Your task to perform on an android device: move a message to another label in the gmail app Image 0: 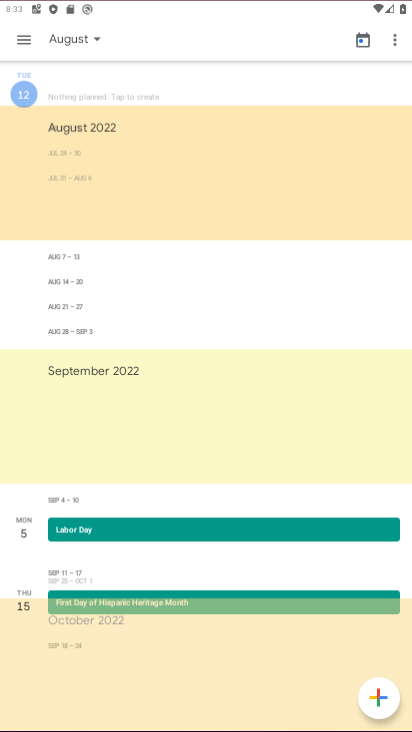
Step 0: drag from (188, 618) to (265, 44)
Your task to perform on an android device: move a message to another label in the gmail app Image 1: 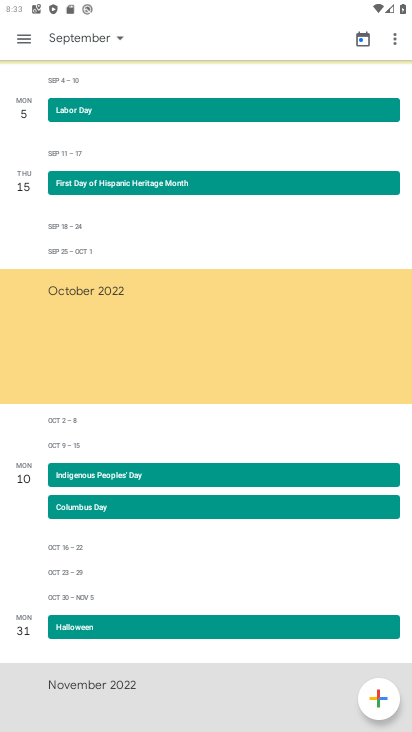
Step 1: drag from (207, 684) to (226, 260)
Your task to perform on an android device: move a message to another label in the gmail app Image 2: 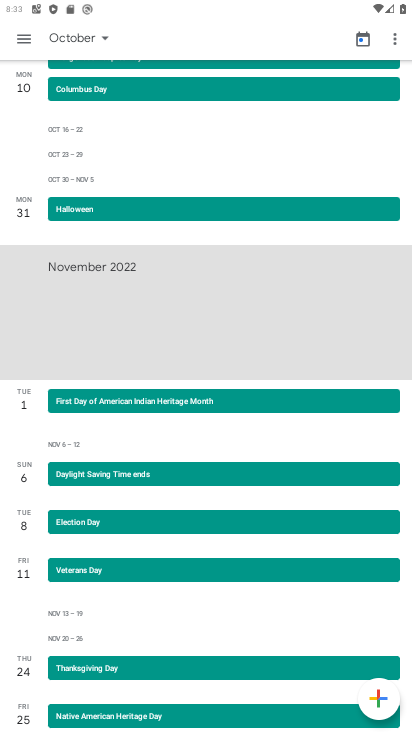
Step 2: press home button
Your task to perform on an android device: move a message to another label in the gmail app Image 3: 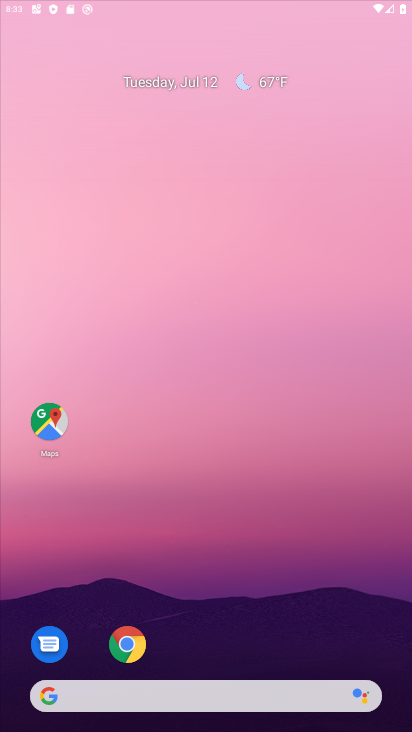
Step 3: drag from (180, 680) to (178, 87)
Your task to perform on an android device: move a message to another label in the gmail app Image 4: 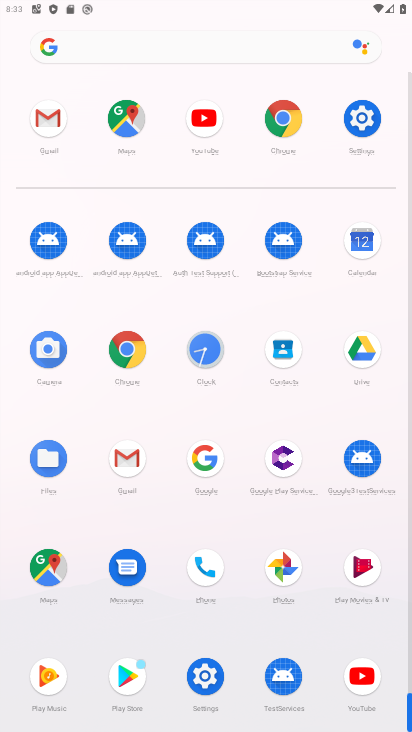
Step 4: click (133, 456)
Your task to perform on an android device: move a message to another label in the gmail app Image 5: 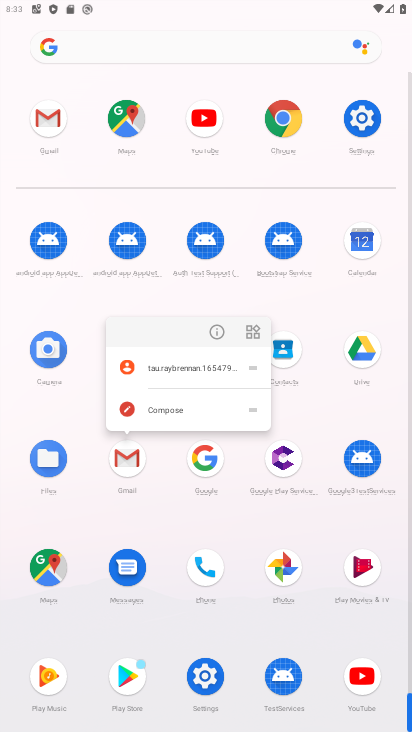
Step 5: click (216, 319)
Your task to perform on an android device: move a message to another label in the gmail app Image 6: 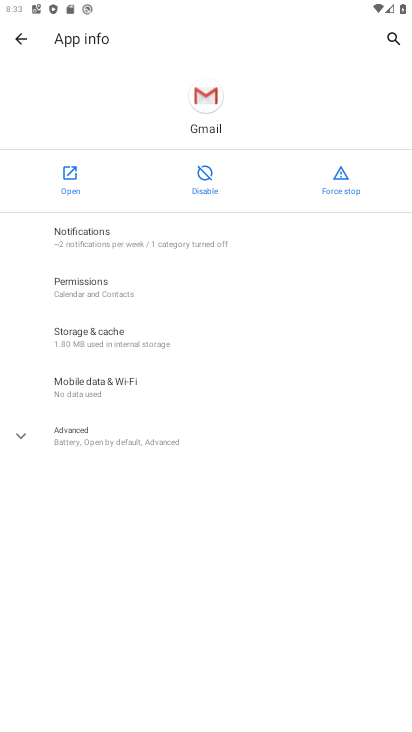
Step 6: click (64, 163)
Your task to perform on an android device: move a message to another label in the gmail app Image 7: 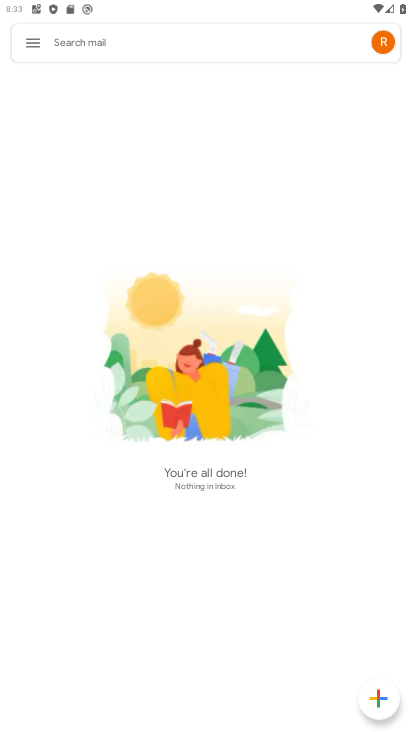
Step 7: click (141, 431)
Your task to perform on an android device: move a message to another label in the gmail app Image 8: 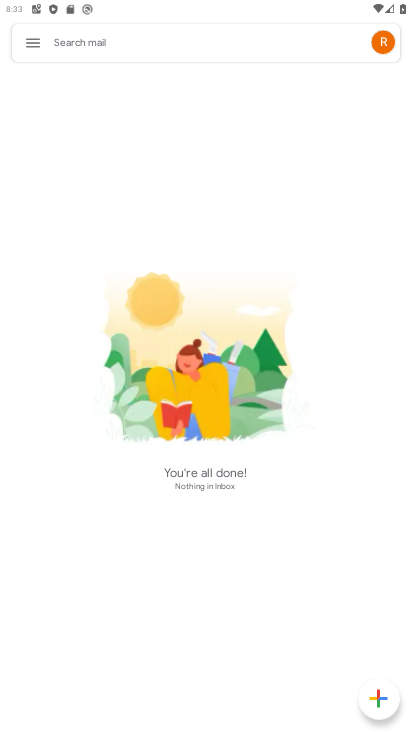
Step 8: click (272, 302)
Your task to perform on an android device: move a message to another label in the gmail app Image 9: 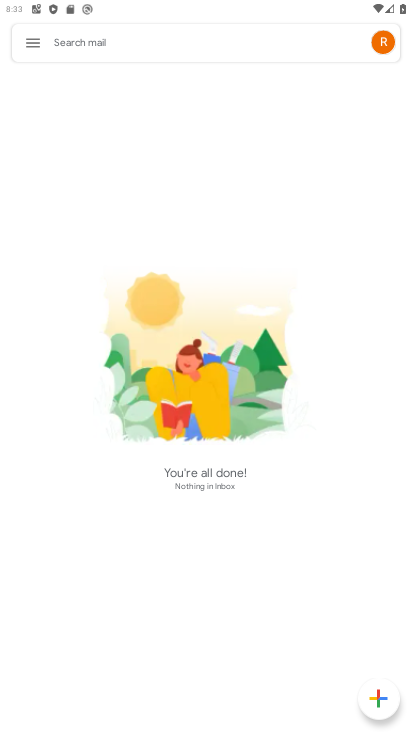
Step 9: click (234, 194)
Your task to perform on an android device: move a message to another label in the gmail app Image 10: 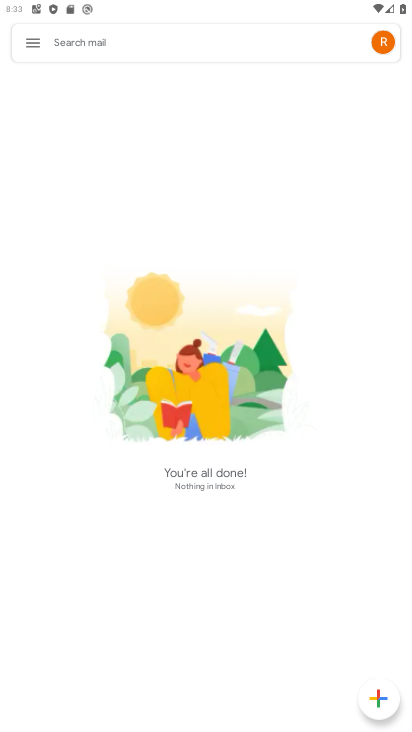
Step 10: click (239, 193)
Your task to perform on an android device: move a message to another label in the gmail app Image 11: 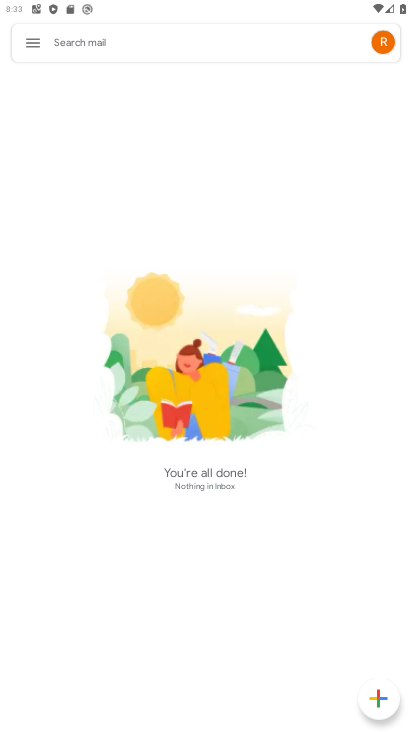
Step 11: click (237, 195)
Your task to perform on an android device: move a message to another label in the gmail app Image 12: 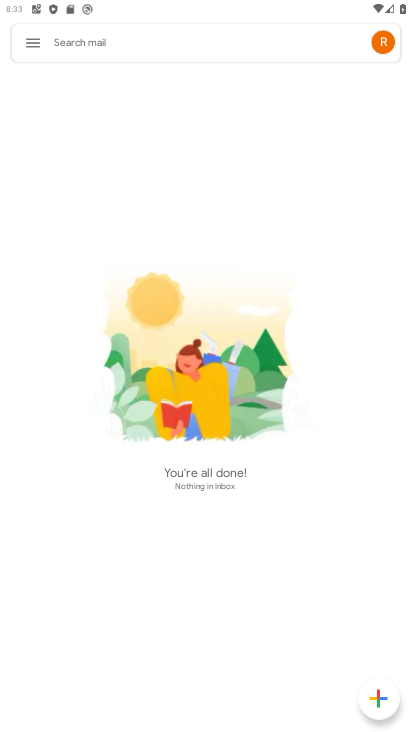
Step 12: click (231, 197)
Your task to perform on an android device: move a message to another label in the gmail app Image 13: 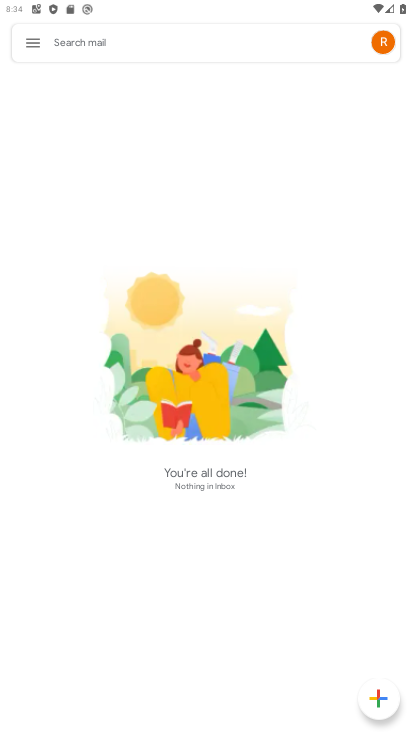
Step 13: task complete